Your task to perform on an android device: turn on showing notifications on the lock screen Image 0: 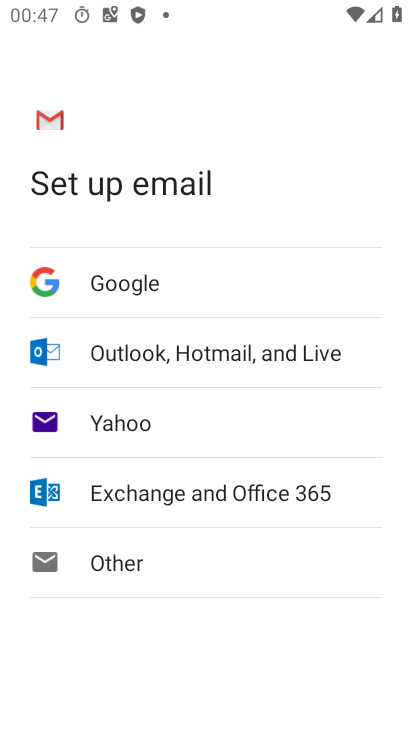
Step 0: press back button
Your task to perform on an android device: turn on showing notifications on the lock screen Image 1: 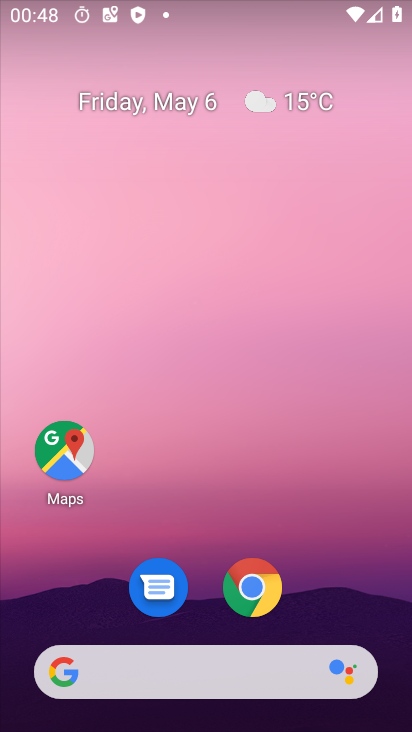
Step 1: drag from (393, 650) to (385, 256)
Your task to perform on an android device: turn on showing notifications on the lock screen Image 2: 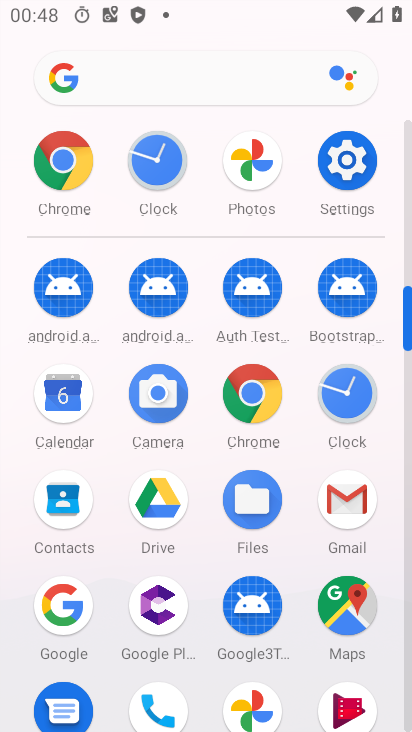
Step 2: click (358, 167)
Your task to perform on an android device: turn on showing notifications on the lock screen Image 3: 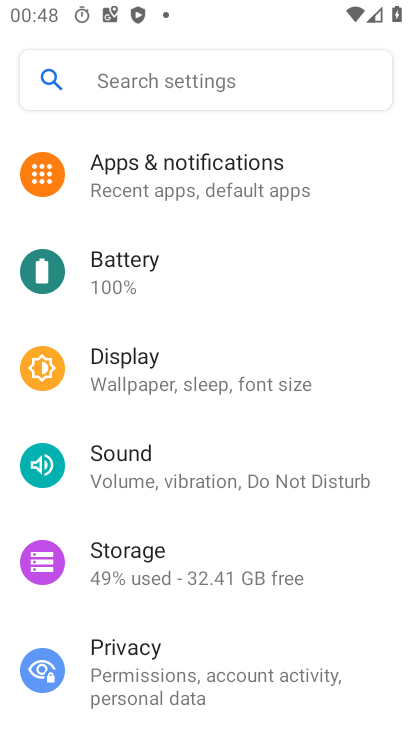
Step 3: click (181, 170)
Your task to perform on an android device: turn on showing notifications on the lock screen Image 4: 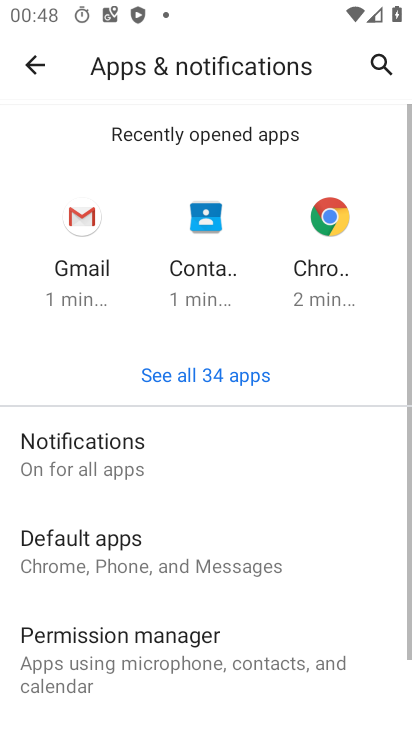
Step 4: drag from (305, 635) to (229, 259)
Your task to perform on an android device: turn on showing notifications on the lock screen Image 5: 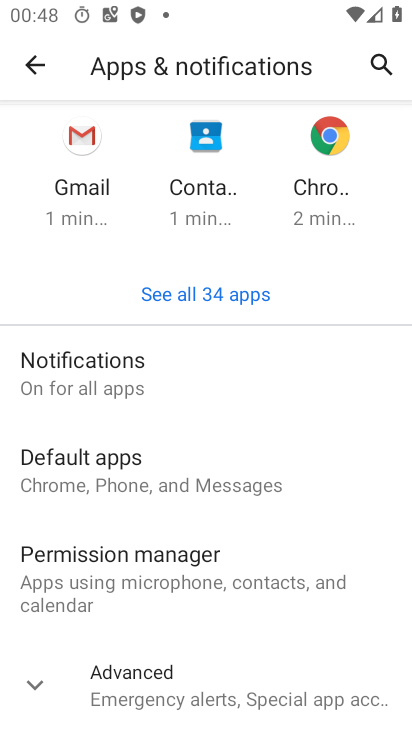
Step 5: drag from (265, 666) to (216, 374)
Your task to perform on an android device: turn on showing notifications on the lock screen Image 6: 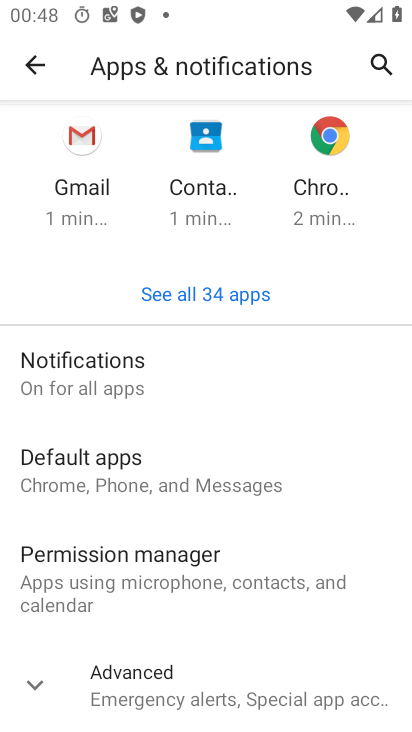
Step 6: click (79, 375)
Your task to perform on an android device: turn on showing notifications on the lock screen Image 7: 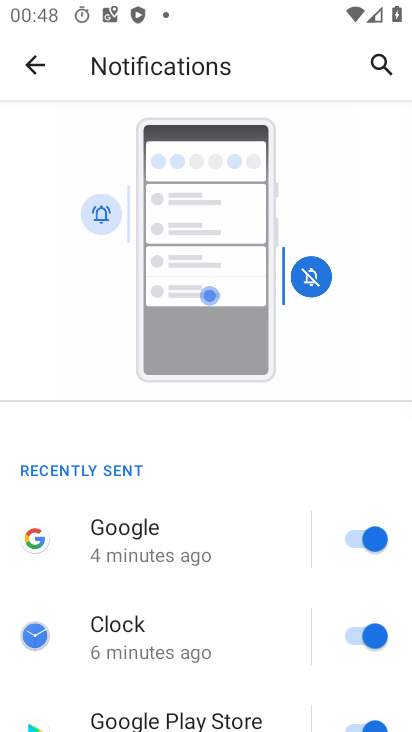
Step 7: drag from (244, 636) to (202, 228)
Your task to perform on an android device: turn on showing notifications on the lock screen Image 8: 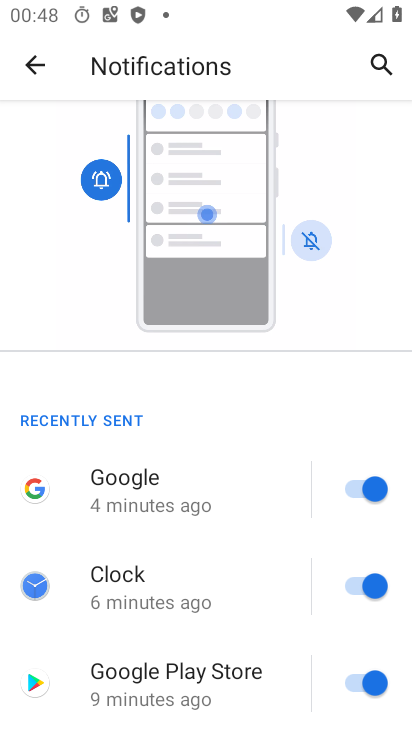
Step 8: drag from (295, 682) to (256, 300)
Your task to perform on an android device: turn on showing notifications on the lock screen Image 9: 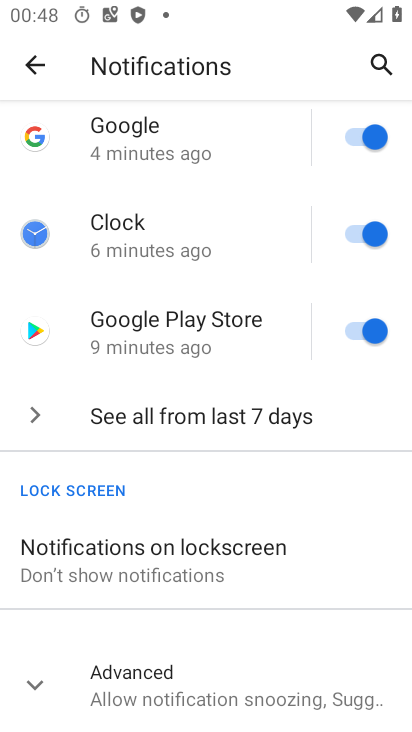
Step 9: click (154, 543)
Your task to perform on an android device: turn on showing notifications on the lock screen Image 10: 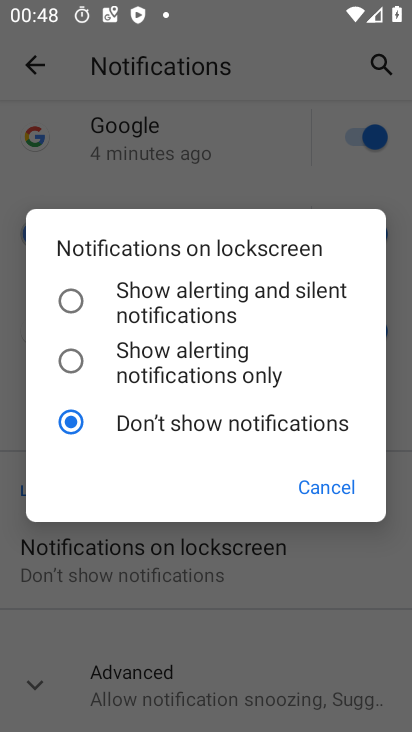
Step 10: click (69, 287)
Your task to perform on an android device: turn on showing notifications on the lock screen Image 11: 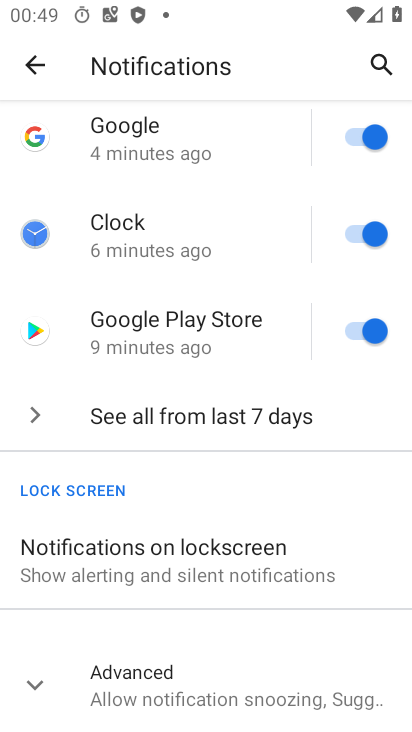
Step 11: click (171, 542)
Your task to perform on an android device: turn on showing notifications on the lock screen Image 12: 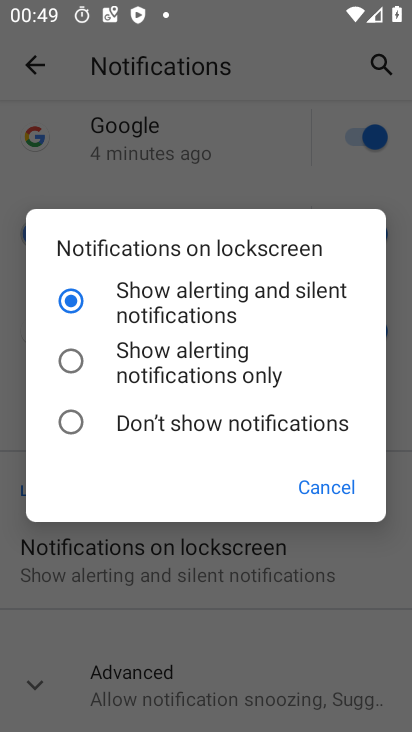
Step 12: task complete